Your task to perform on an android device: Search for Italian restaurants on Maps Image 0: 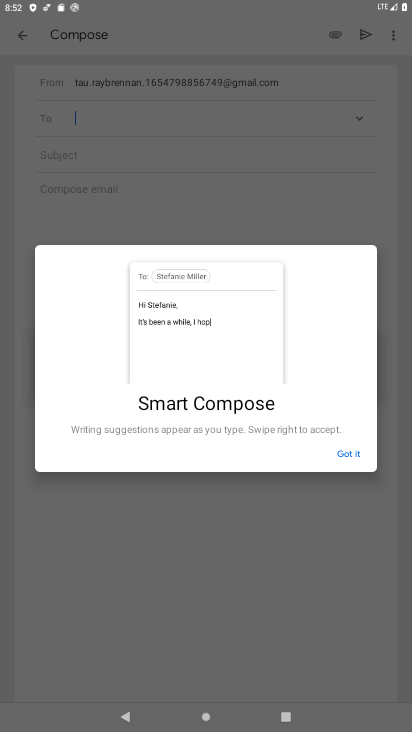
Step 0: press home button
Your task to perform on an android device: Search for Italian restaurants on Maps Image 1: 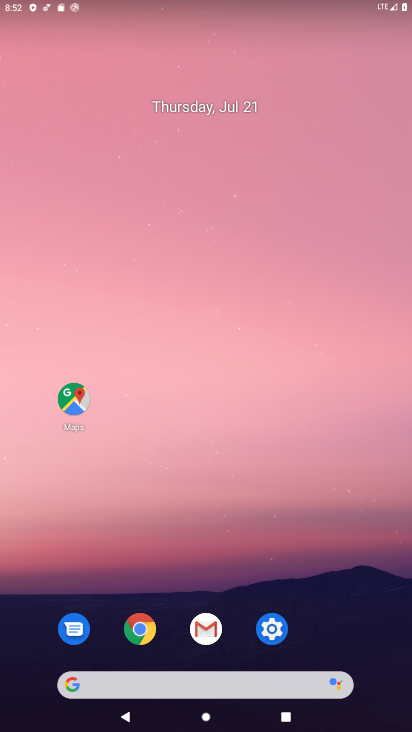
Step 1: click (59, 405)
Your task to perform on an android device: Search for Italian restaurants on Maps Image 2: 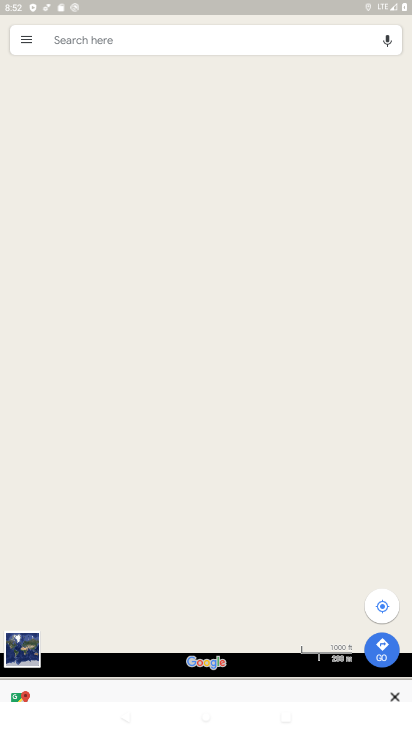
Step 2: click (98, 43)
Your task to perform on an android device: Search for Italian restaurants on Maps Image 3: 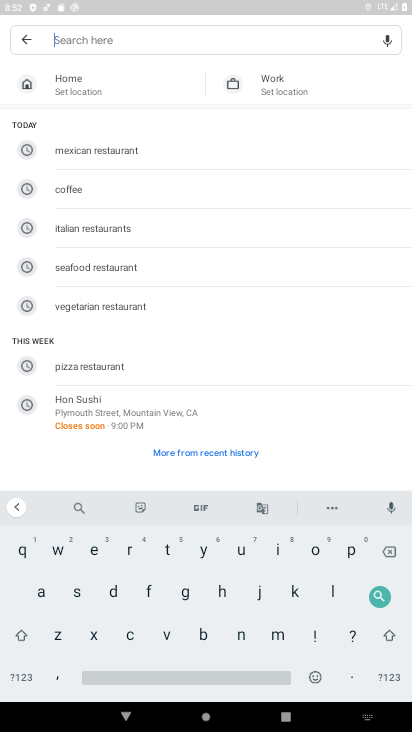
Step 3: click (87, 234)
Your task to perform on an android device: Search for Italian restaurants on Maps Image 4: 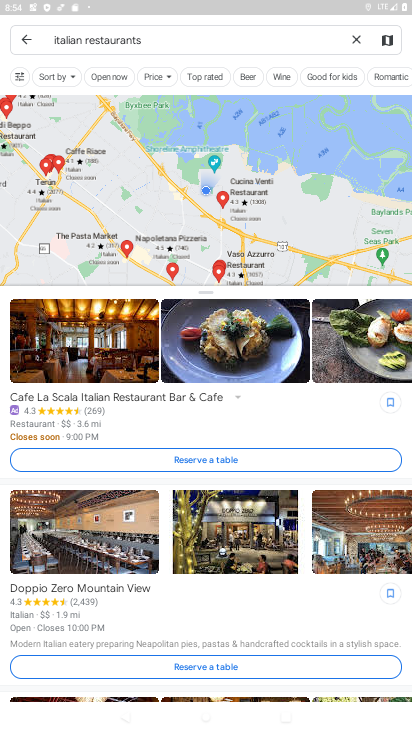
Step 4: task complete